Your task to perform on an android device: turn on showing notifications on the lock screen Image 0: 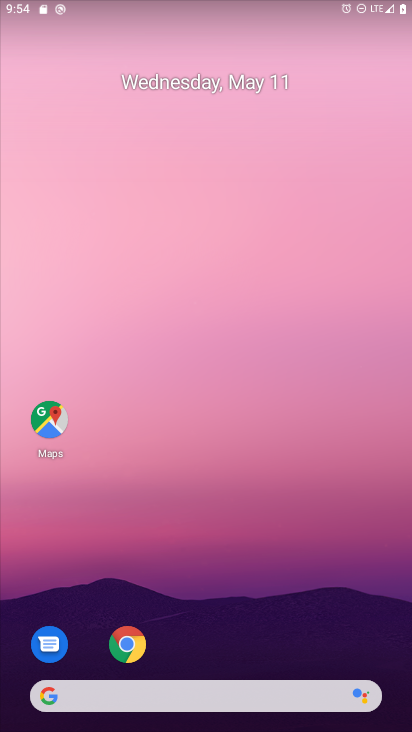
Step 0: drag from (220, 594) to (168, 74)
Your task to perform on an android device: turn on showing notifications on the lock screen Image 1: 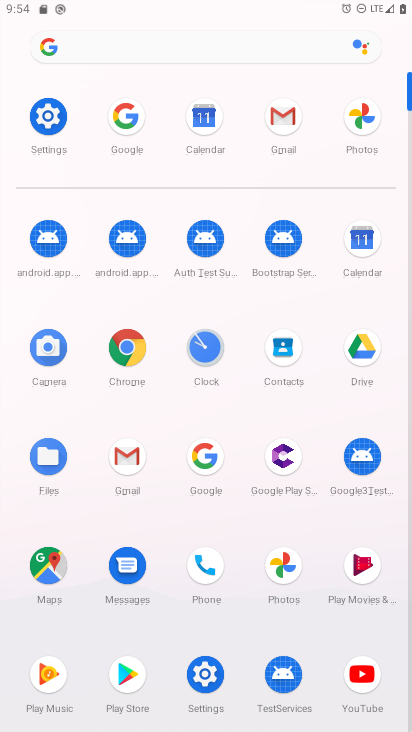
Step 1: click (47, 118)
Your task to perform on an android device: turn on showing notifications on the lock screen Image 2: 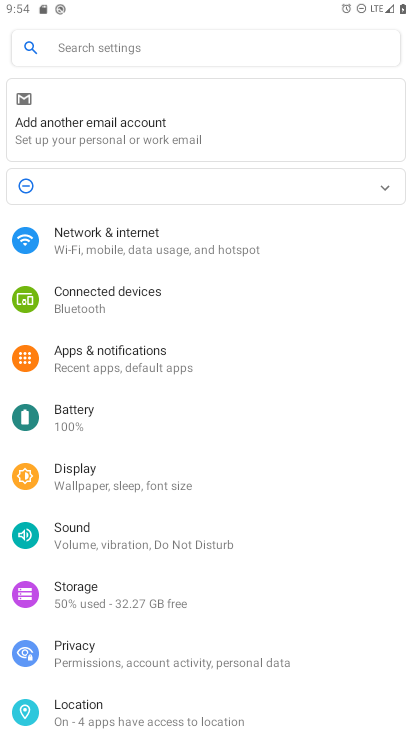
Step 2: click (115, 341)
Your task to perform on an android device: turn on showing notifications on the lock screen Image 3: 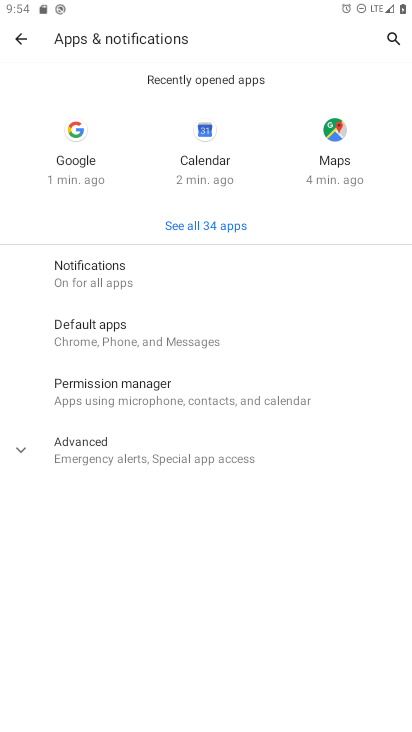
Step 3: click (80, 260)
Your task to perform on an android device: turn on showing notifications on the lock screen Image 4: 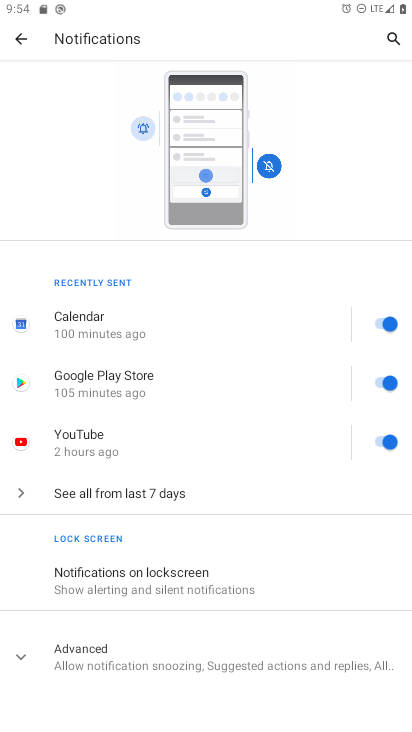
Step 4: drag from (219, 620) to (192, 433)
Your task to perform on an android device: turn on showing notifications on the lock screen Image 5: 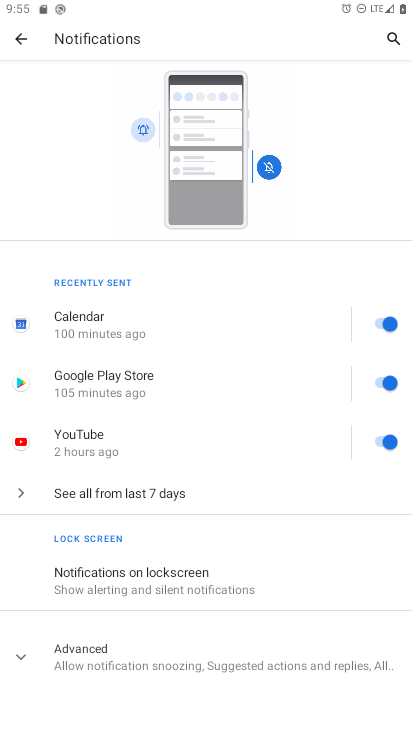
Step 5: click (128, 568)
Your task to perform on an android device: turn on showing notifications on the lock screen Image 6: 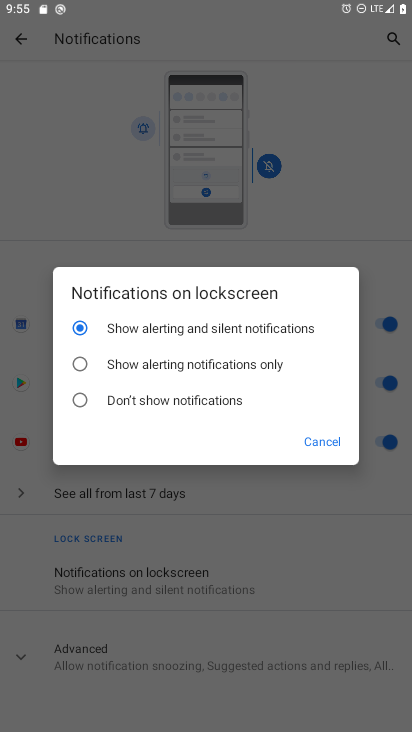
Step 6: task complete